Your task to perform on an android device: set the timer Image 0: 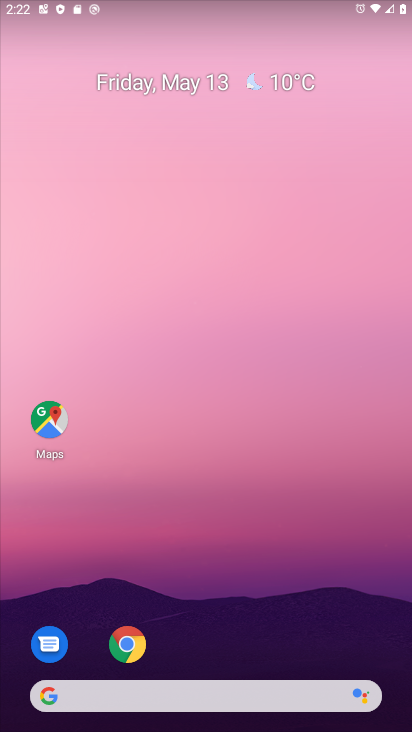
Step 0: click (95, 260)
Your task to perform on an android device: set the timer Image 1: 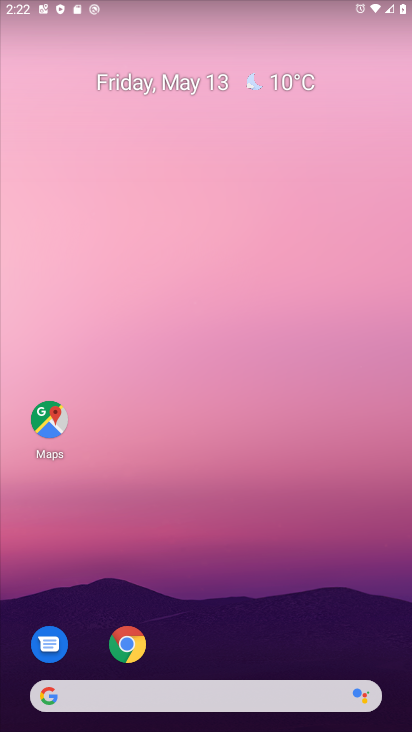
Step 1: drag from (231, 728) to (237, 142)
Your task to perform on an android device: set the timer Image 2: 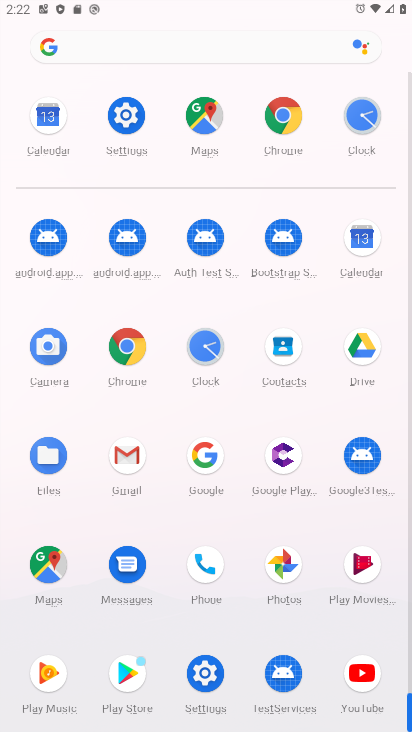
Step 2: click (362, 110)
Your task to perform on an android device: set the timer Image 3: 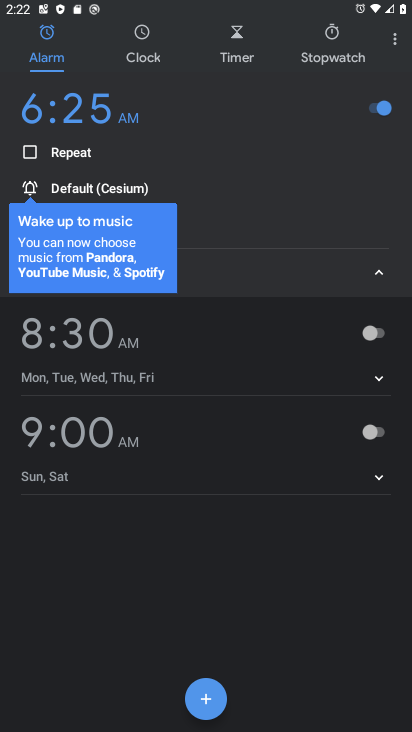
Step 3: click (236, 41)
Your task to perform on an android device: set the timer Image 4: 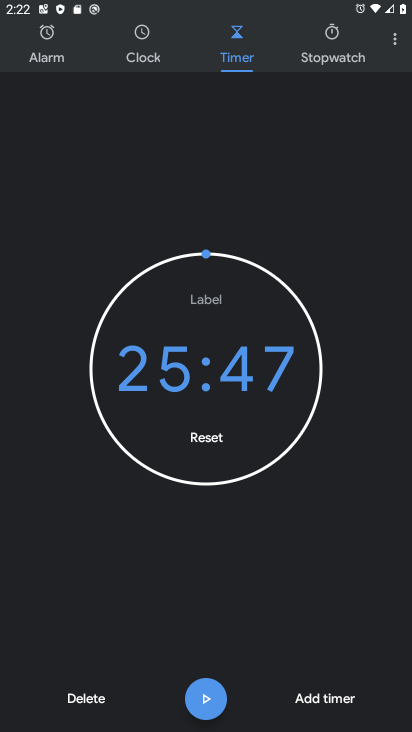
Step 4: click (316, 692)
Your task to perform on an android device: set the timer Image 5: 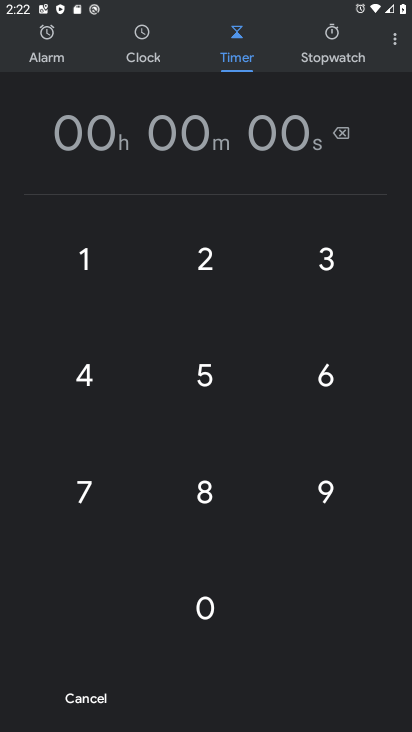
Step 5: click (203, 378)
Your task to perform on an android device: set the timer Image 6: 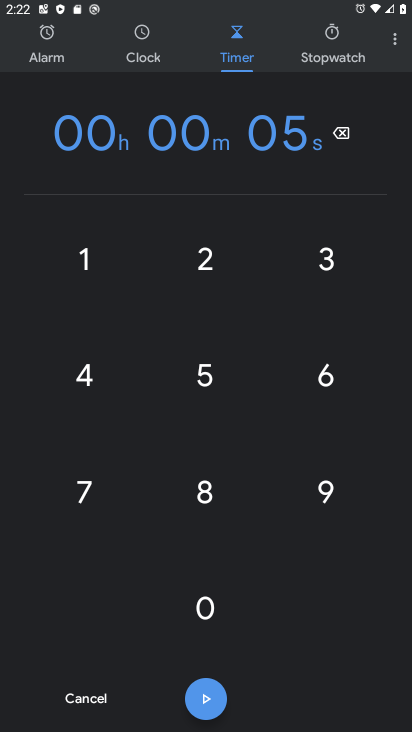
Step 6: click (82, 377)
Your task to perform on an android device: set the timer Image 7: 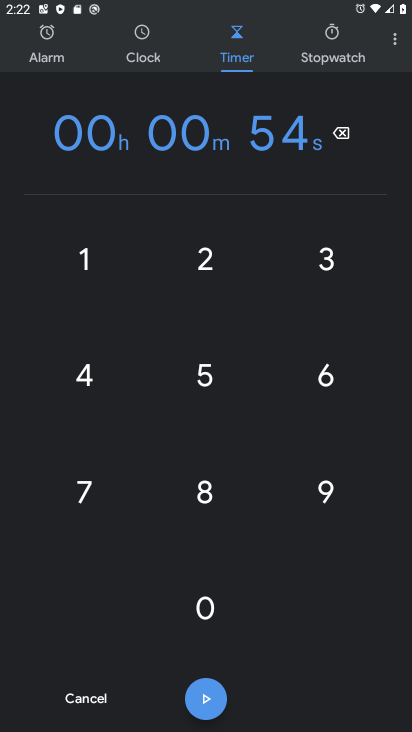
Step 7: click (216, 259)
Your task to perform on an android device: set the timer Image 8: 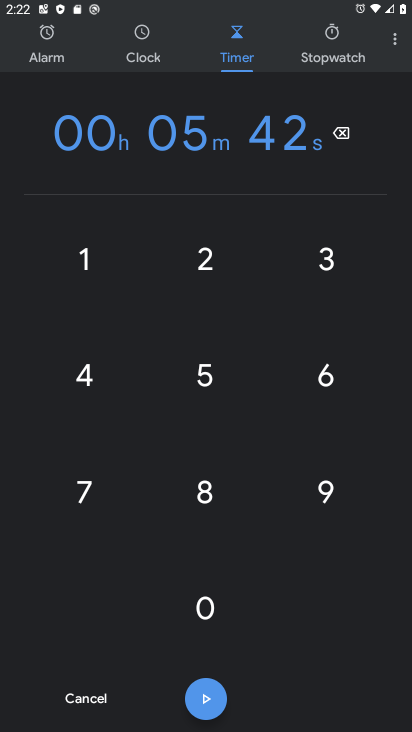
Step 8: click (337, 256)
Your task to perform on an android device: set the timer Image 9: 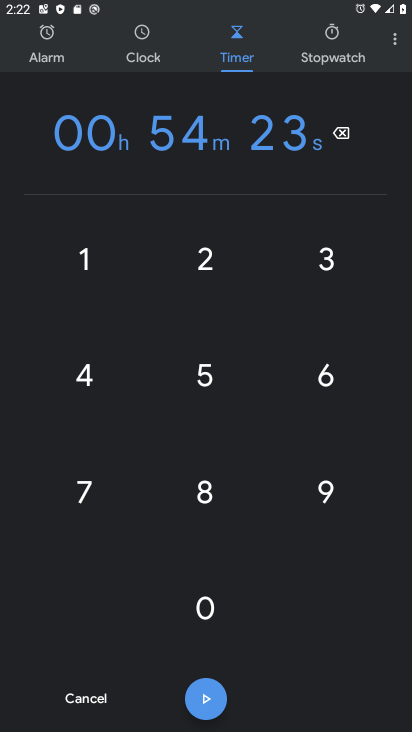
Step 9: click (328, 451)
Your task to perform on an android device: set the timer Image 10: 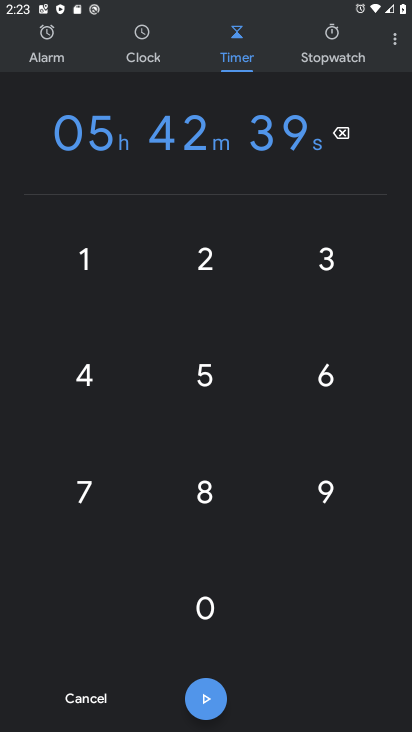
Step 10: click (208, 691)
Your task to perform on an android device: set the timer Image 11: 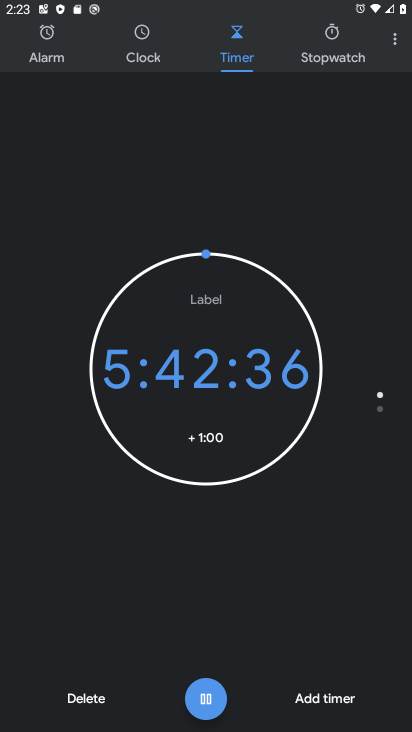
Step 11: task complete